Your task to perform on an android device: Go to calendar. Show me events next week Image 0: 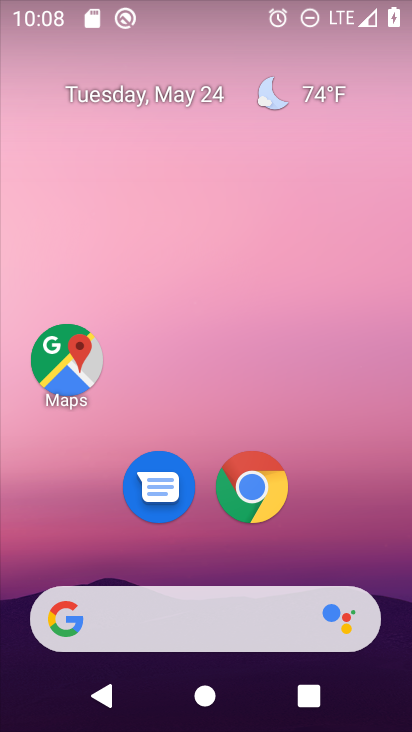
Step 0: drag from (345, 560) to (345, 1)
Your task to perform on an android device: Go to calendar. Show me events next week Image 1: 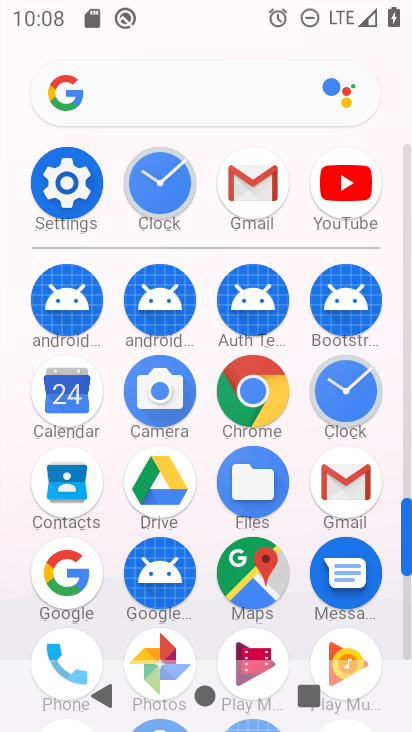
Step 1: click (70, 382)
Your task to perform on an android device: Go to calendar. Show me events next week Image 2: 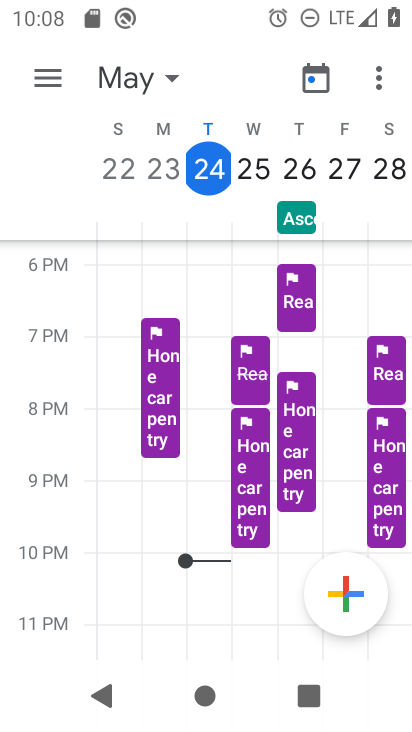
Step 2: click (32, 84)
Your task to perform on an android device: Go to calendar. Show me events next week Image 3: 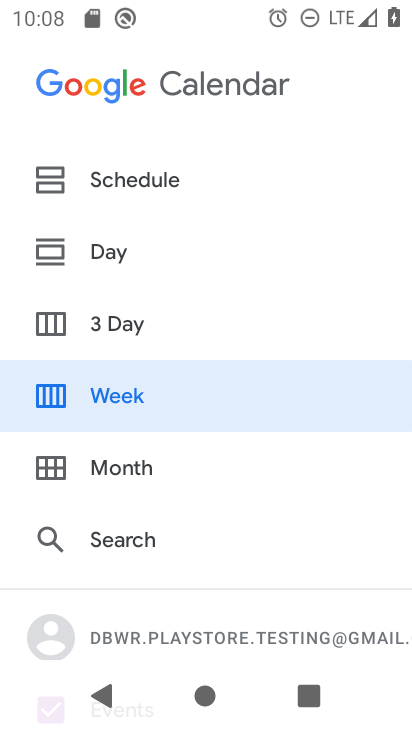
Step 3: drag from (159, 520) to (138, 139)
Your task to perform on an android device: Go to calendar. Show me events next week Image 4: 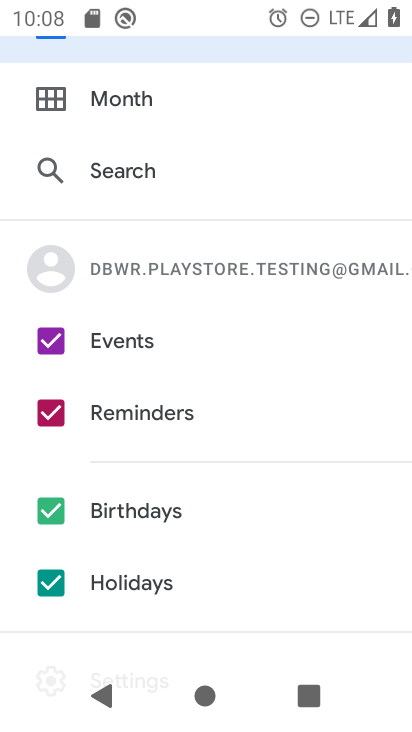
Step 4: click (40, 415)
Your task to perform on an android device: Go to calendar. Show me events next week Image 5: 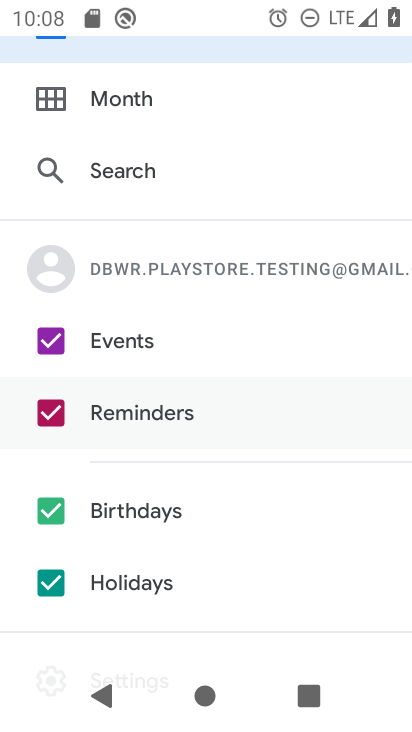
Step 5: click (49, 502)
Your task to perform on an android device: Go to calendar. Show me events next week Image 6: 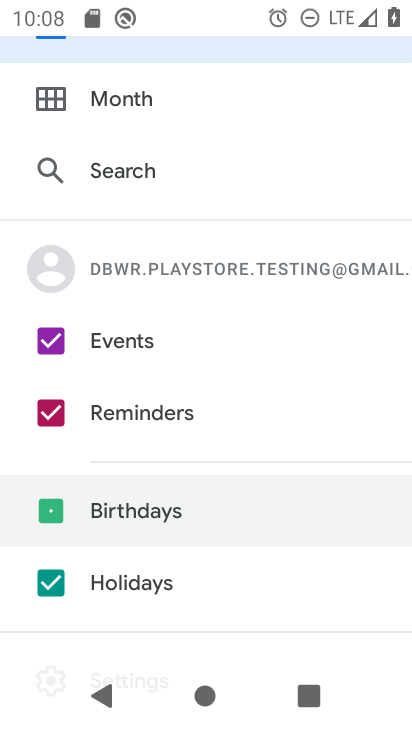
Step 6: click (66, 587)
Your task to perform on an android device: Go to calendar. Show me events next week Image 7: 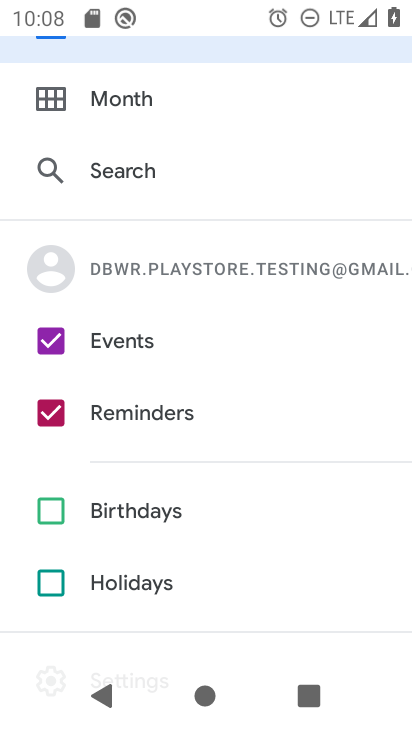
Step 7: click (58, 413)
Your task to perform on an android device: Go to calendar. Show me events next week Image 8: 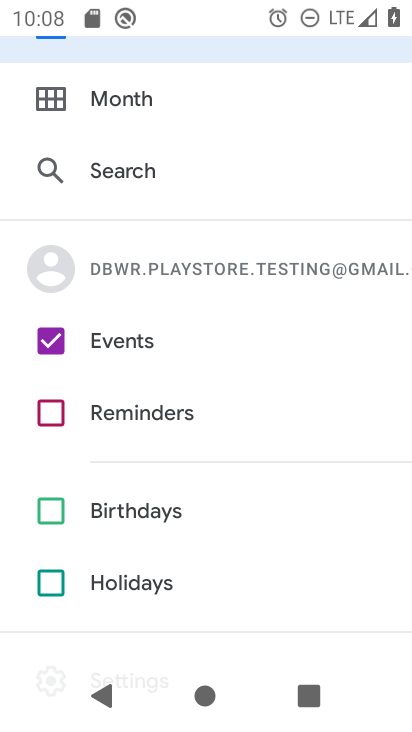
Step 8: drag from (266, 257) to (323, 457)
Your task to perform on an android device: Go to calendar. Show me events next week Image 9: 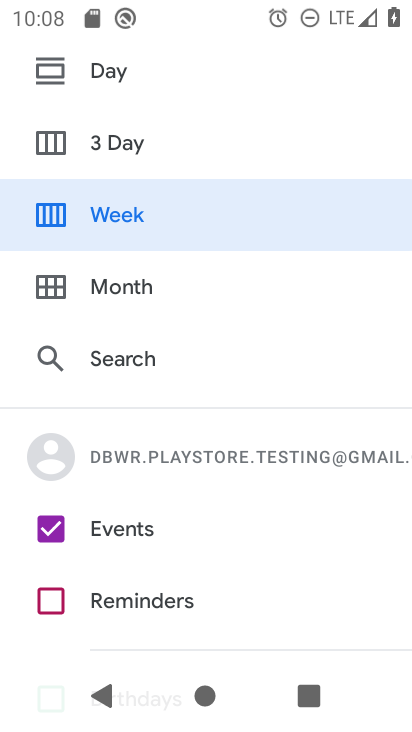
Step 9: click (65, 223)
Your task to perform on an android device: Go to calendar. Show me events next week Image 10: 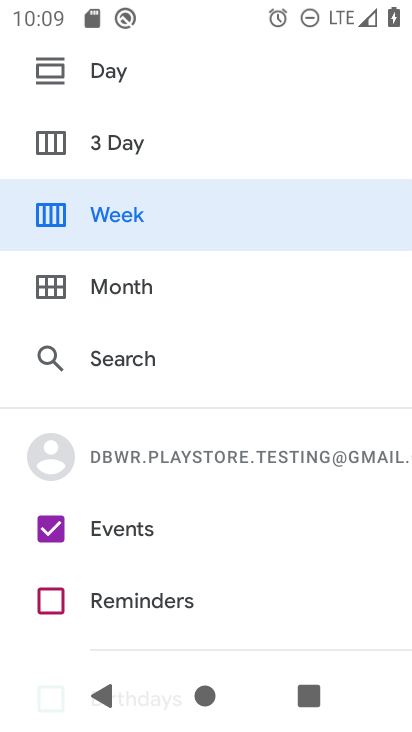
Step 10: click (95, 222)
Your task to perform on an android device: Go to calendar. Show me events next week Image 11: 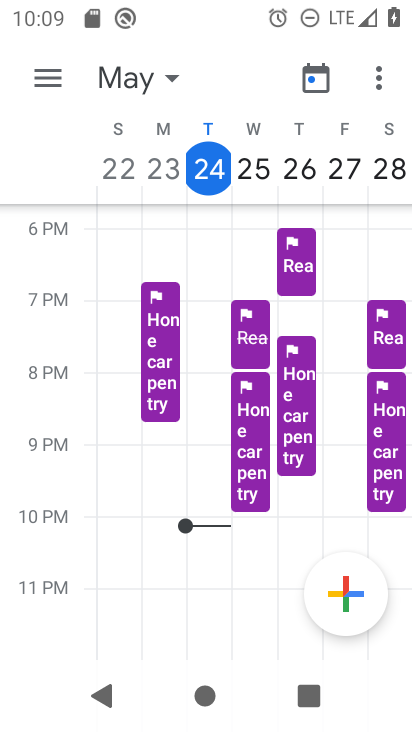
Step 11: task complete